Your task to perform on an android device: Go to wifi settings Image 0: 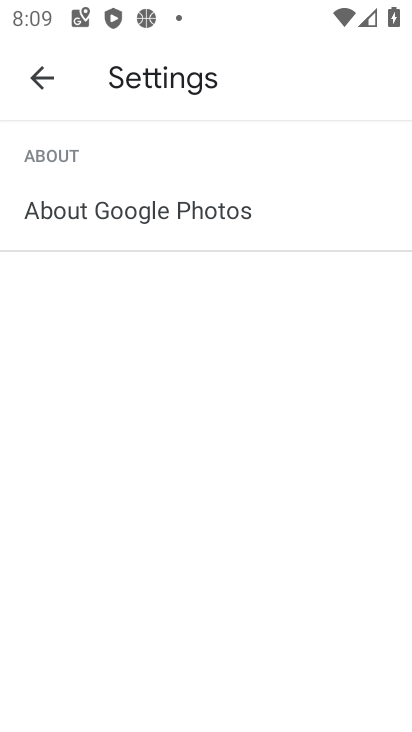
Step 0: press home button
Your task to perform on an android device: Go to wifi settings Image 1: 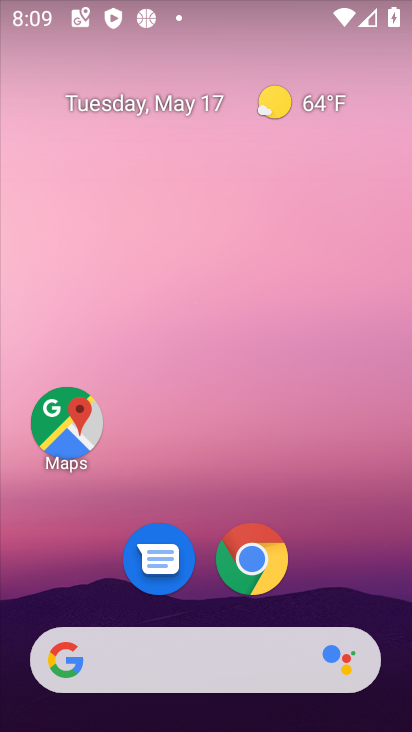
Step 1: drag from (219, 612) to (176, 5)
Your task to perform on an android device: Go to wifi settings Image 2: 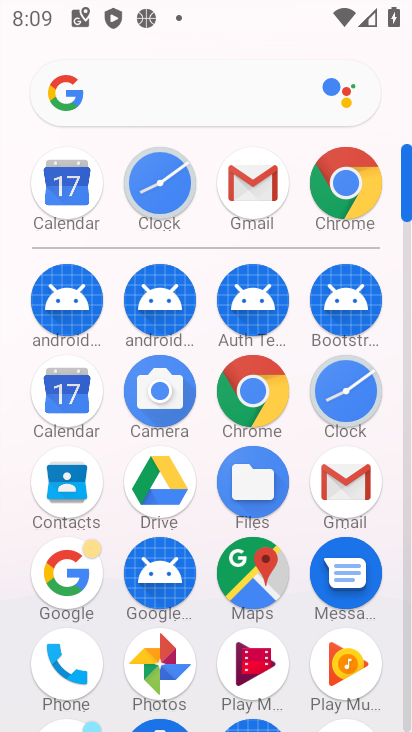
Step 2: drag from (114, 613) to (103, 127)
Your task to perform on an android device: Go to wifi settings Image 3: 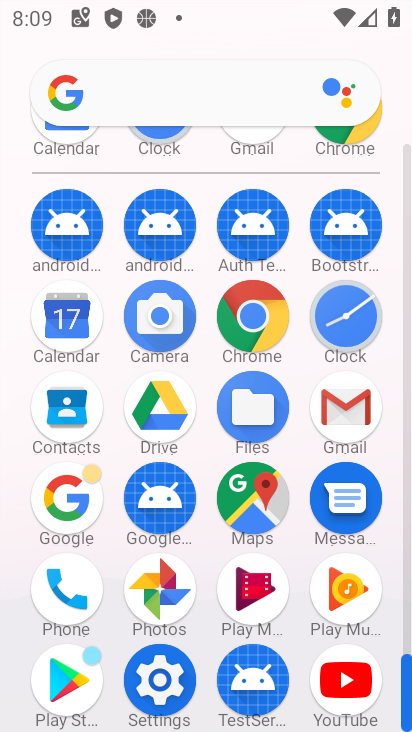
Step 3: click (164, 667)
Your task to perform on an android device: Go to wifi settings Image 4: 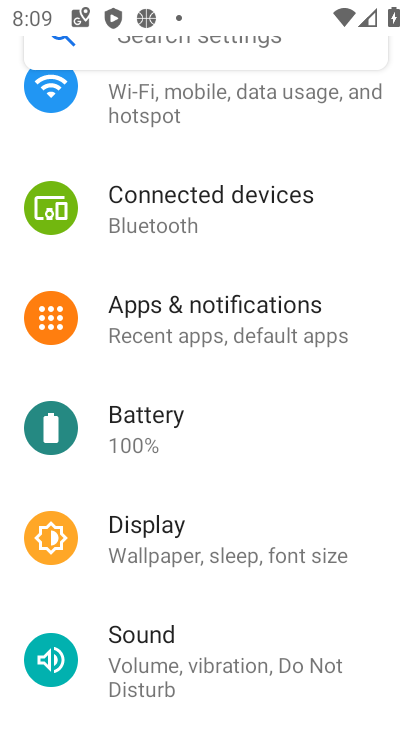
Step 4: click (121, 128)
Your task to perform on an android device: Go to wifi settings Image 5: 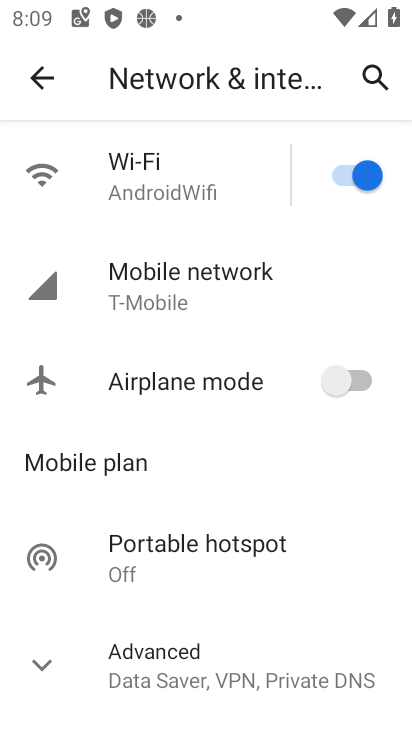
Step 5: click (138, 175)
Your task to perform on an android device: Go to wifi settings Image 6: 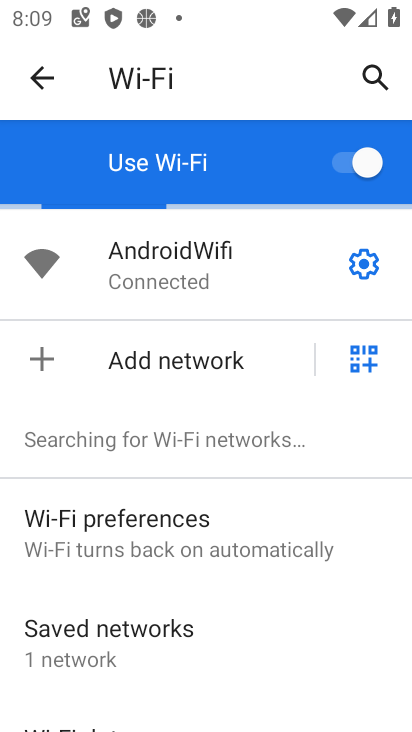
Step 6: task complete